Your task to perform on an android device: allow notifications from all sites in the chrome app Image 0: 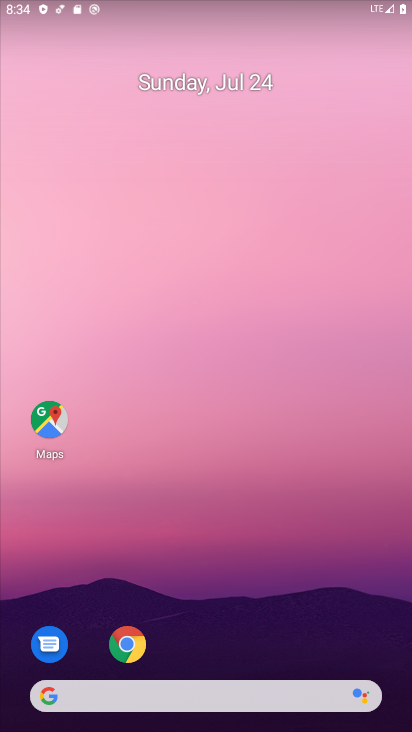
Step 0: click (141, 646)
Your task to perform on an android device: allow notifications from all sites in the chrome app Image 1: 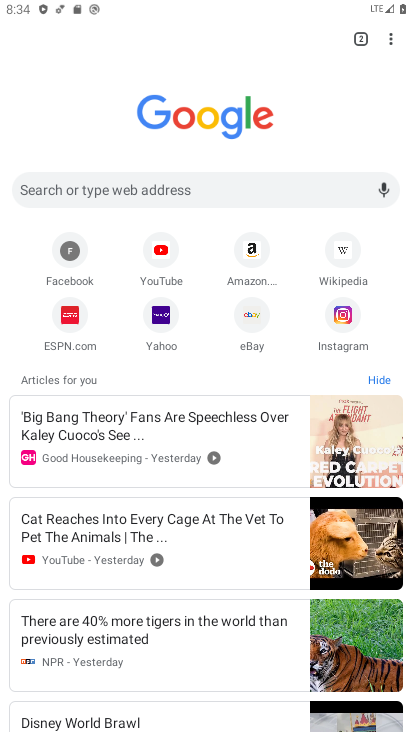
Step 1: click (389, 37)
Your task to perform on an android device: allow notifications from all sites in the chrome app Image 2: 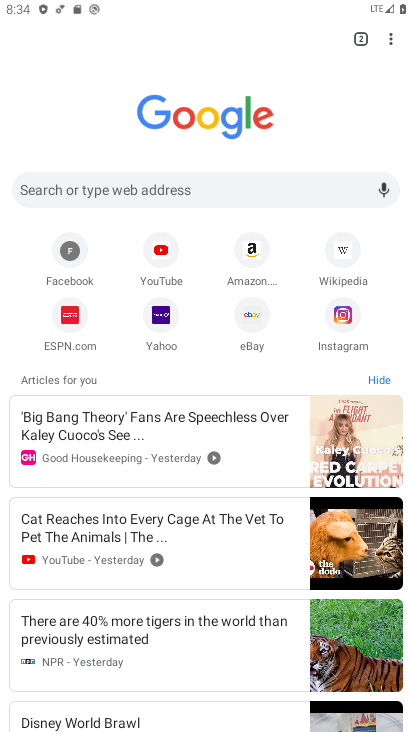
Step 2: click (389, 37)
Your task to perform on an android device: allow notifications from all sites in the chrome app Image 3: 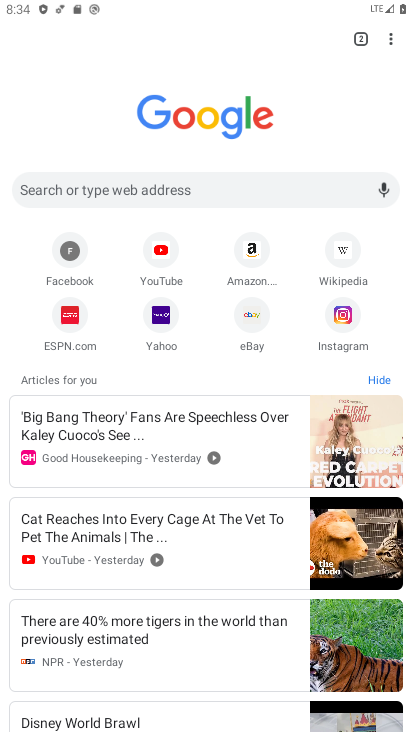
Step 3: click (389, 37)
Your task to perform on an android device: allow notifications from all sites in the chrome app Image 4: 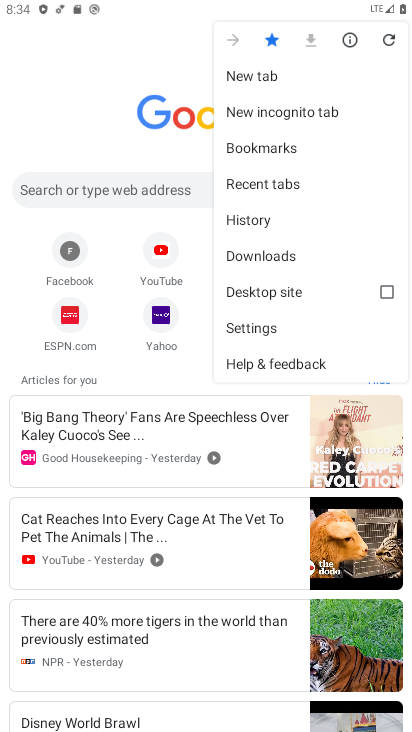
Step 4: click (272, 329)
Your task to perform on an android device: allow notifications from all sites in the chrome app Image 5: 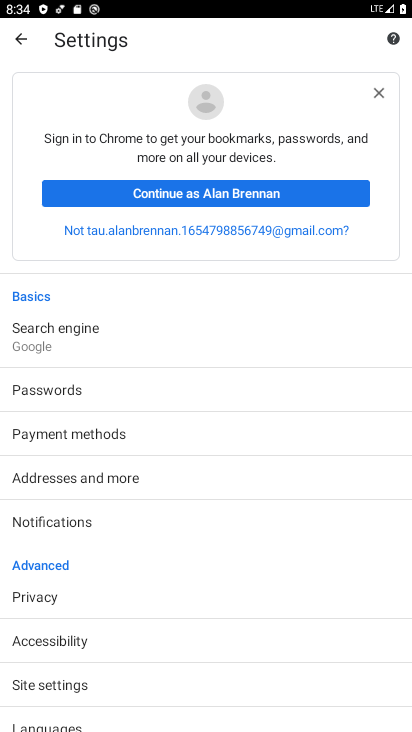
Step 5: drag from (15, 572) to (219, 166)
Your task to perform on an android device: allow notifications from all sites in the chrome app Image 6: 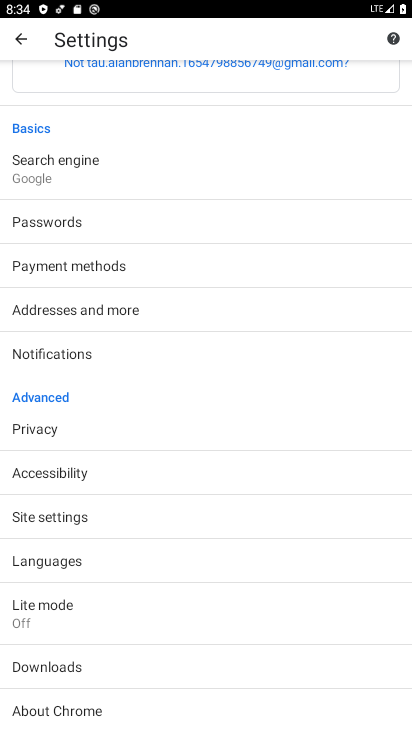
Step 6: click (46, 515)
Your task to perform on an android device: allow notifications from all sites in the chrome app Image 7: 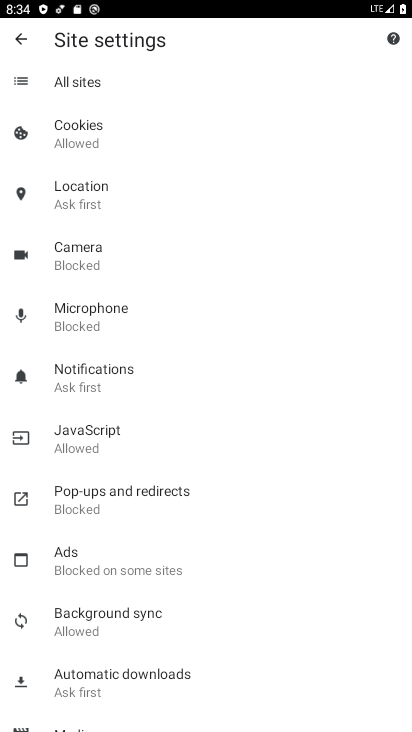
Step 7: click (153, 372)
Your task to perform on an android device: allow notifications from all sites in the chrome app Image 8: 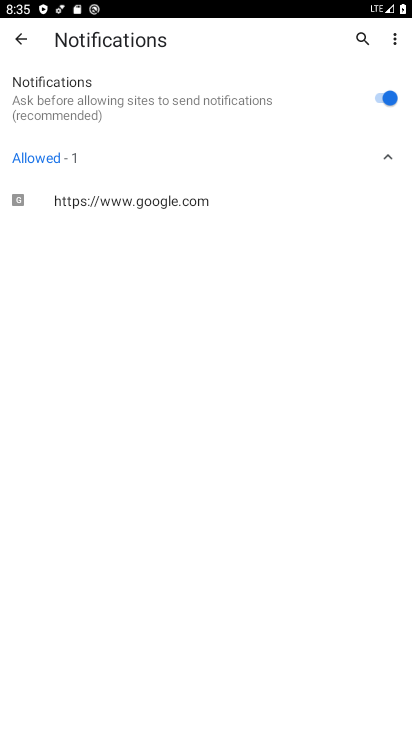
Step 8: task complete